Your task to perform on an android device: Turn off the flashlight Image 0: 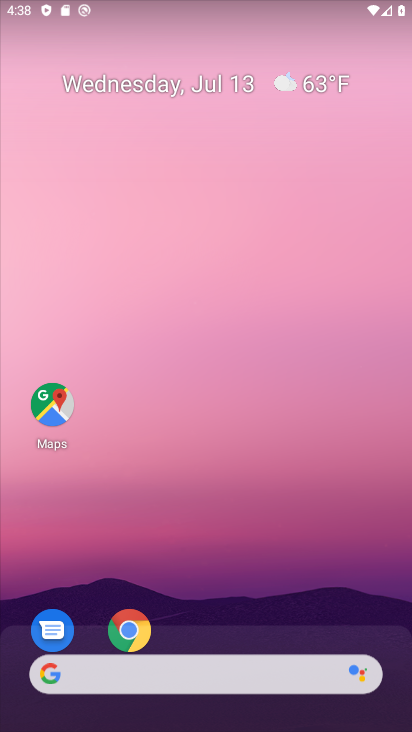
Step 0: press home button
Your task to perform on an android device: Turn off the flashlight Image 1: 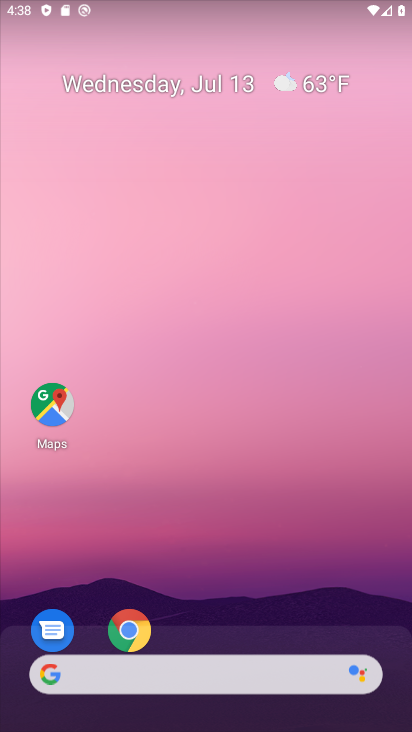
Step 1: task complete